Your task to perform on an android device: Open Amazon Image 0: 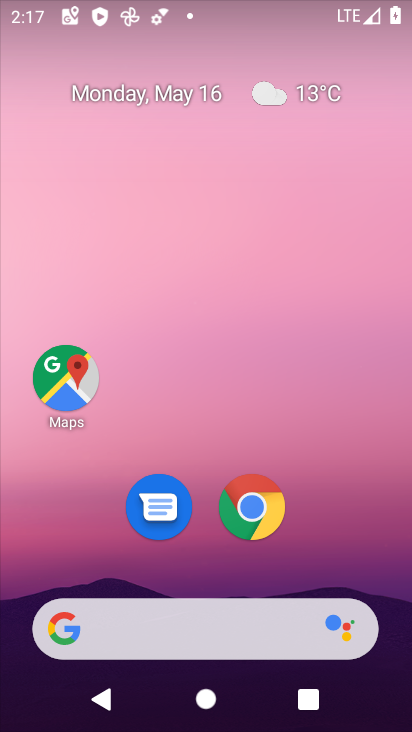
Step 0: click (259, 511)
Your task to perform on an android device: Open Amazon Image 1: 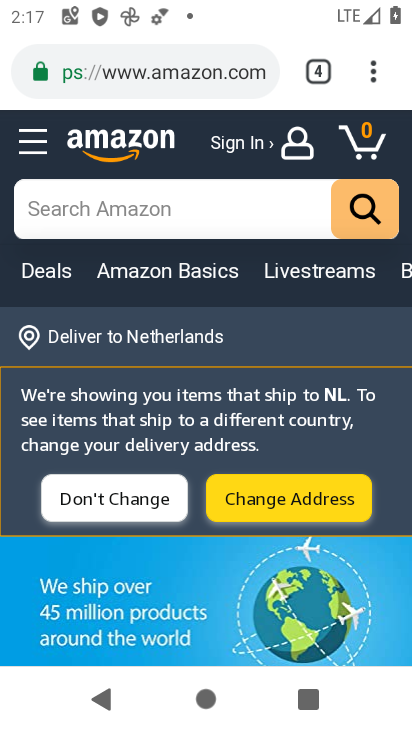
Step 1: task complete